Your task to perform on an android device: Go to ESPN.com Image 0: 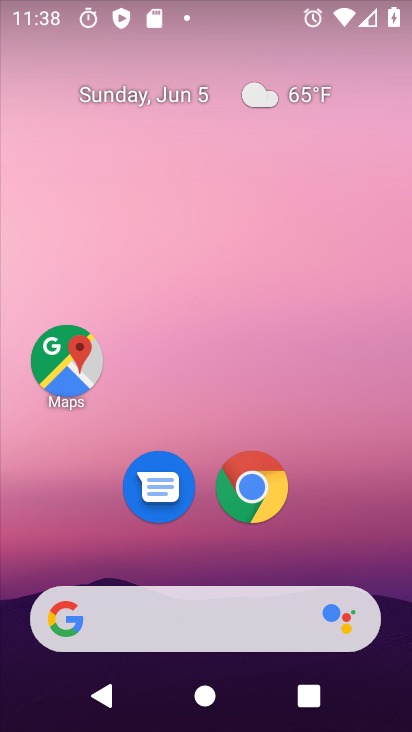
Step 0: drag from (334, 553) to (254, 2)
Your task to perform on an android device: Go to ESPN.com Image 1: 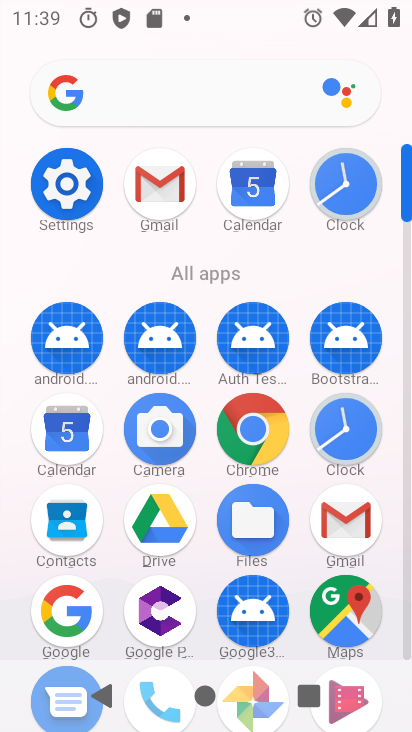
Step 1: drag from (306, 270) to (302, 43)
Your task to perform on an android device: Go to ESPN.com Image 2: 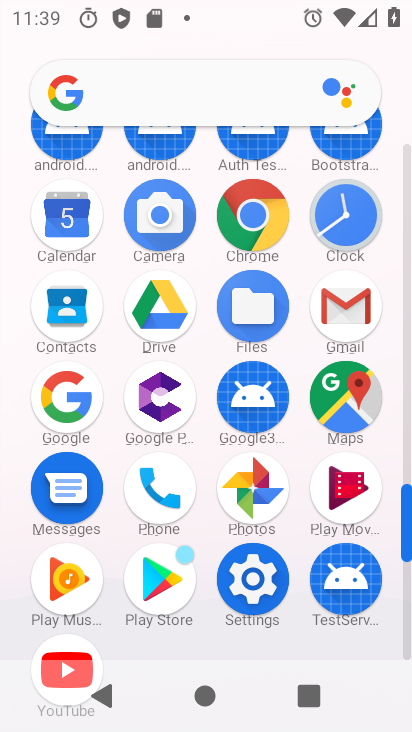
Step 2: click (251, 217)
Your task to perform on an android device: Go to ESPN.com Image 3: 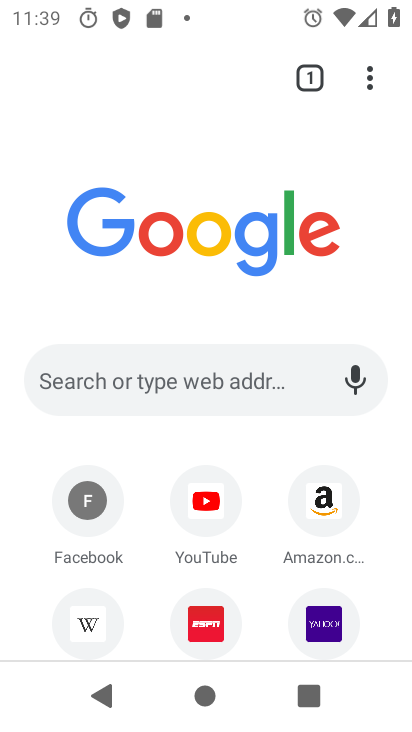
Step 3: click (217, 388)
Your task to perform on an android device: Go to ESPN.com Image 4: 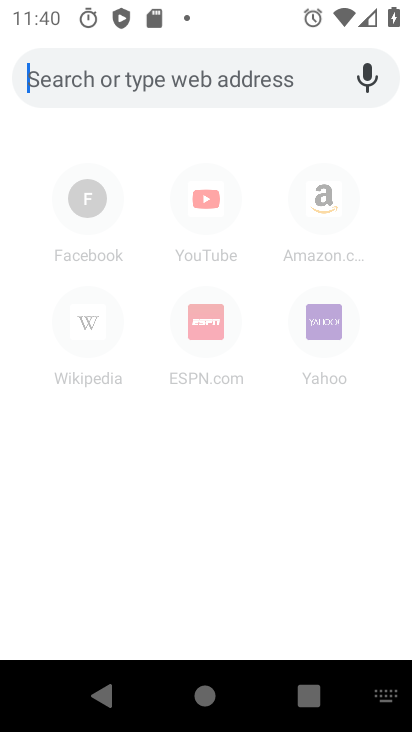
Step 4: type "ESPN.com"
Your task to perform on an android device: Go to ESPN.com Image 5: 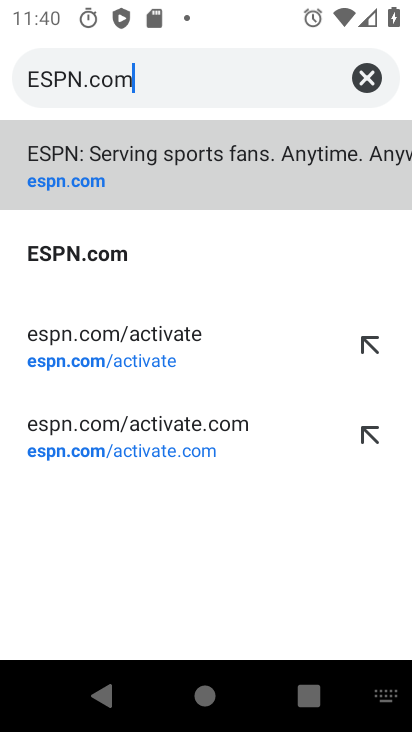
Step 5: click (110, 277)
Your task to perform on an android device: Go to ESPN.com Image 6: 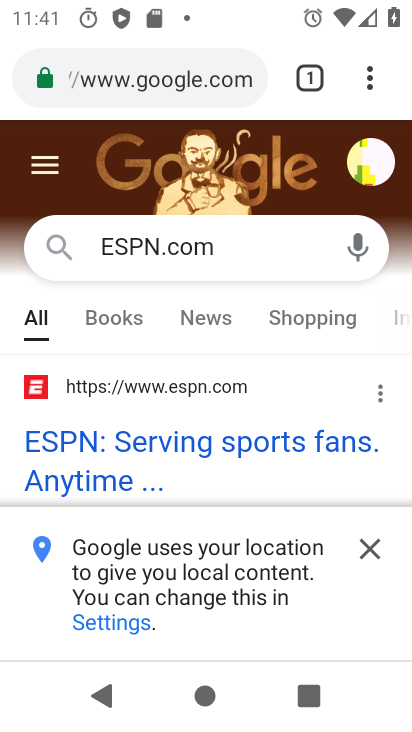
Step 6: click (373, 550)
Your task to perform on an android device: Go to ESPN.com Image 7: 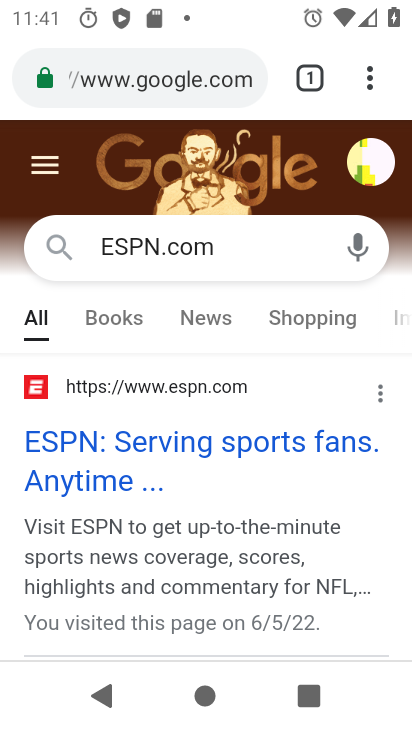
Step 7: click (274, 450)
Your task to perform on an android device: Go to ESPN.com Image 8: 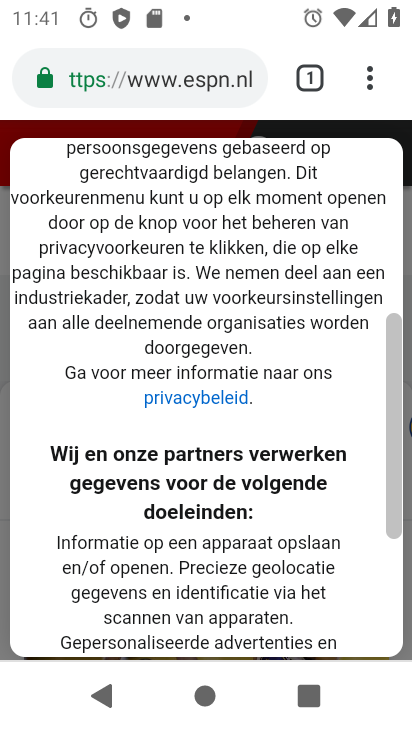
Step 8: task complete